Your task to perform on an android device: toggle location history Image 0: 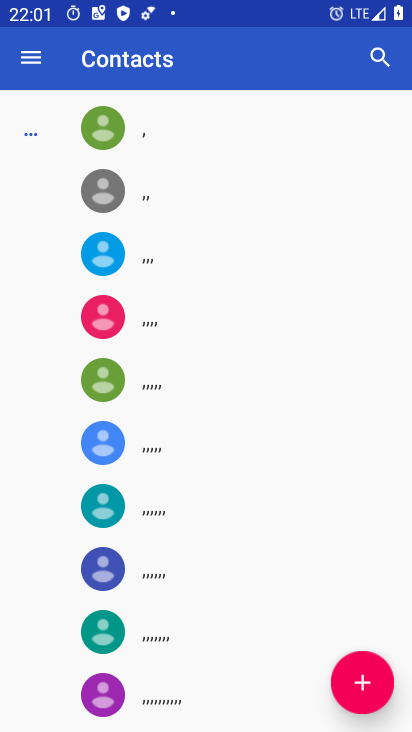
Step 0: press home button
Your task to perform on an android device: toggle location history Image 1: 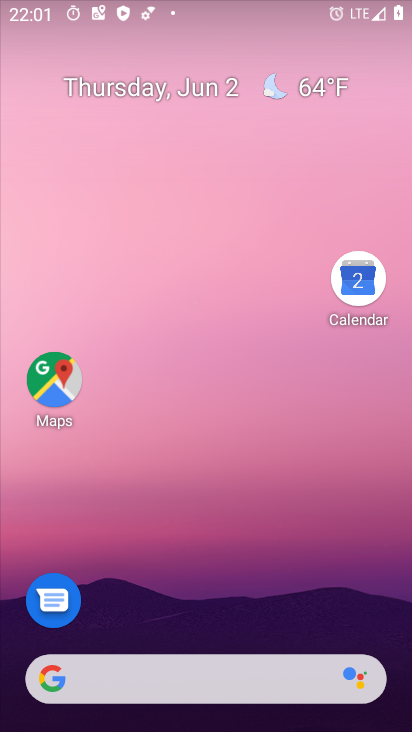
Step 1: drag from (168, 579) to (213, 25)
Your task to perform on an android device: toggle location history Image 2: 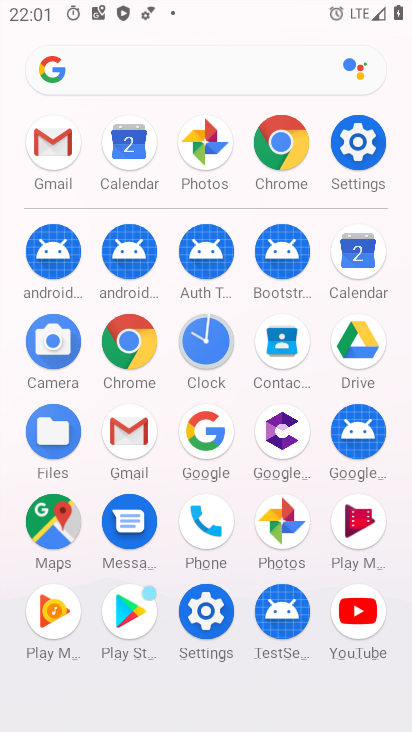
Step 2: click (358, 145)
Your task to perform on an android device: toggle location history Image 3: 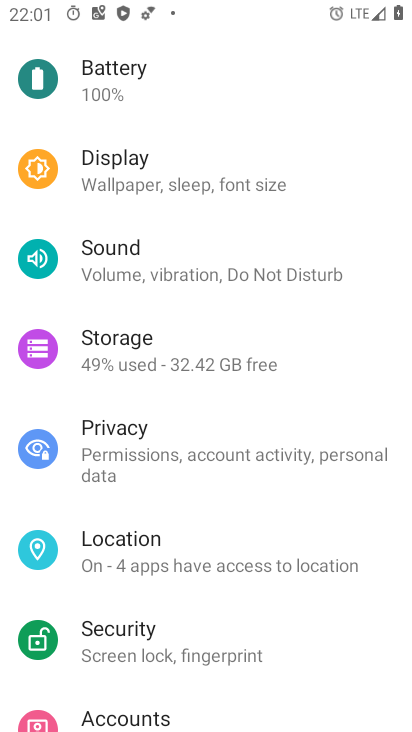
Step 3: click (170, 553)
Your task to perform on an android device: toggle location history Image 4: 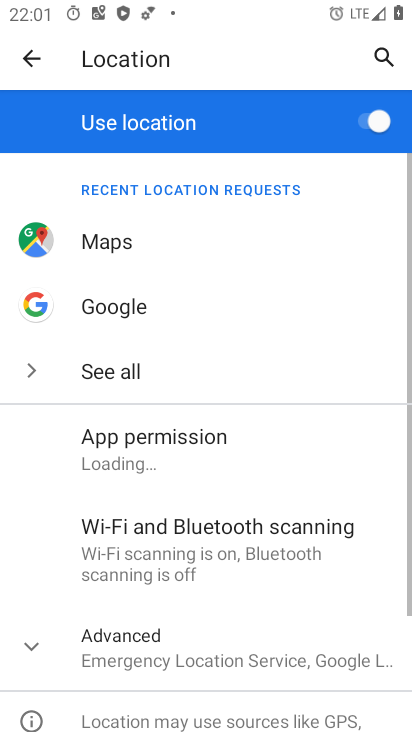
Step 4: drag from (184, 541) to (180, 150)
Your task to perform on an android device: toggle location history Image 5: 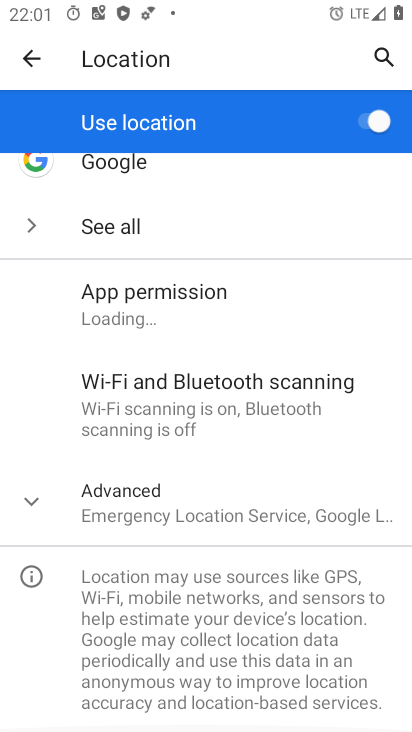
Step 5: click (138, 511)
Your task to perform on an android device: toggle location history Image 6: 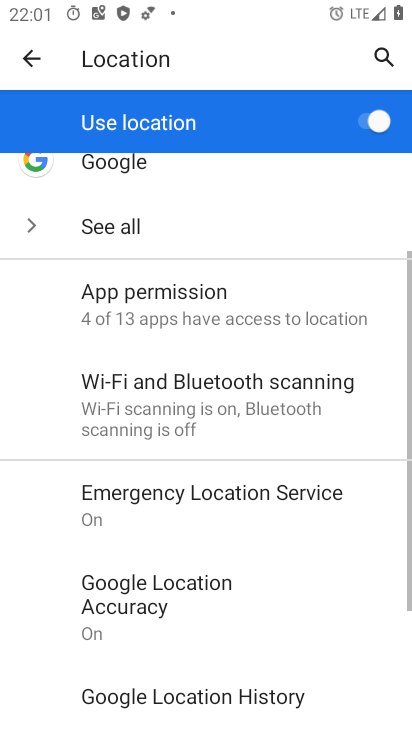
Step 6: drag from (246, 655) to (223, 362)
Your task to perform on an android device: toggle location history Image 7: 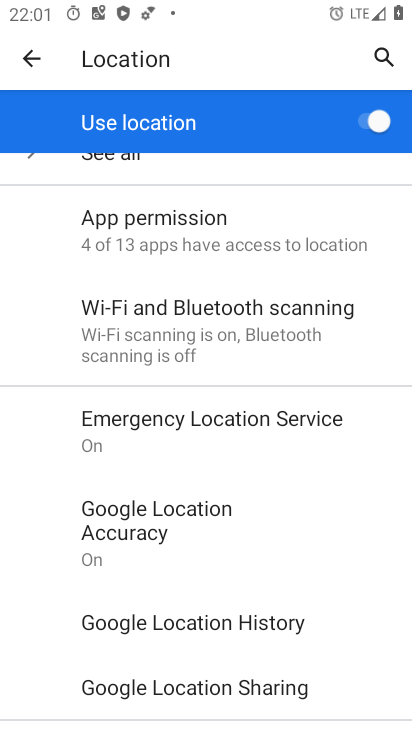
Step 7: click (201, 620)
Your task to perform on an android device: toggle location history Image 8: 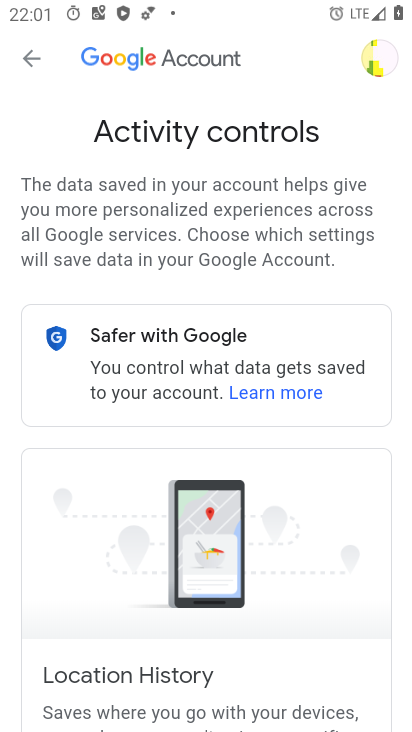
Step 8: drag from (291, 574) to (264, 55)
Your task to perform on an android device: toggle location history Image 9: 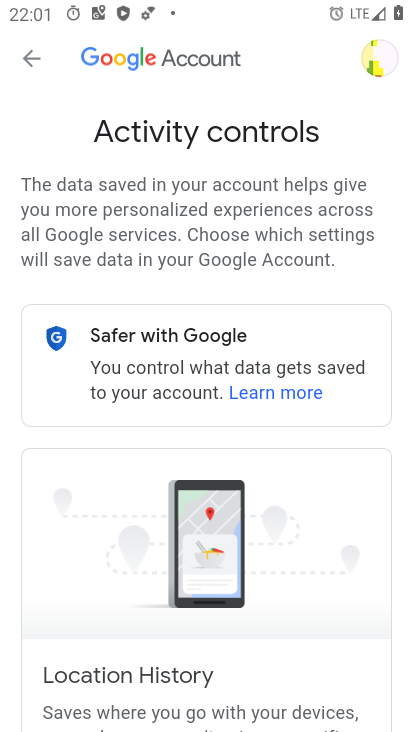
Step 9: drag from (260, 602) to (242, 249)
Your task to perform on an android device: toggle location history Image 10: 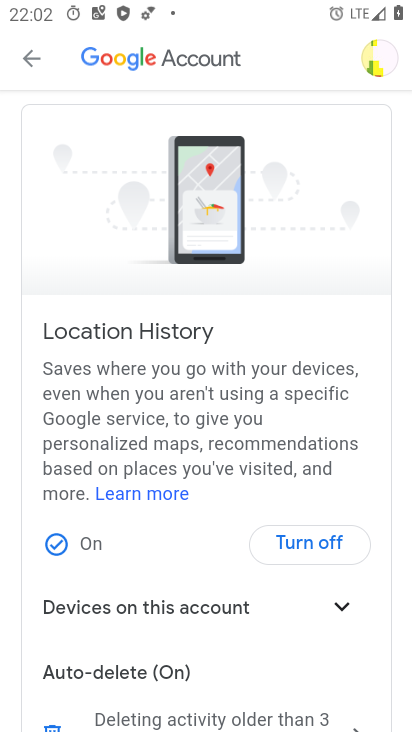
Step 10: click (315, 553)
Your task to perform on an android device: toggle location history Image 11: 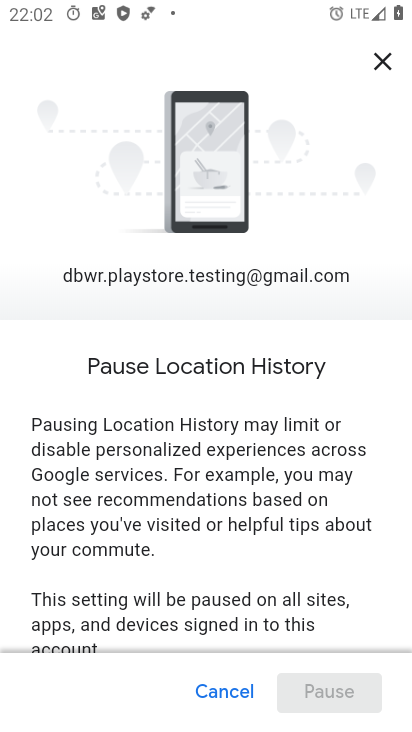
Step 11: drag from (310, 617) to (271, 52)
Your task to perform on an android device: toggle location history Image 12: 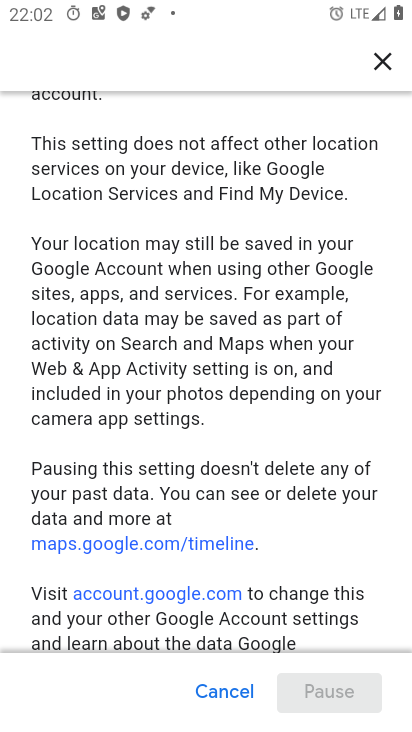
Step 12: drag from (297, 632) to (272, 82)
Your task to perform on an android device: toggle location history Image 13: 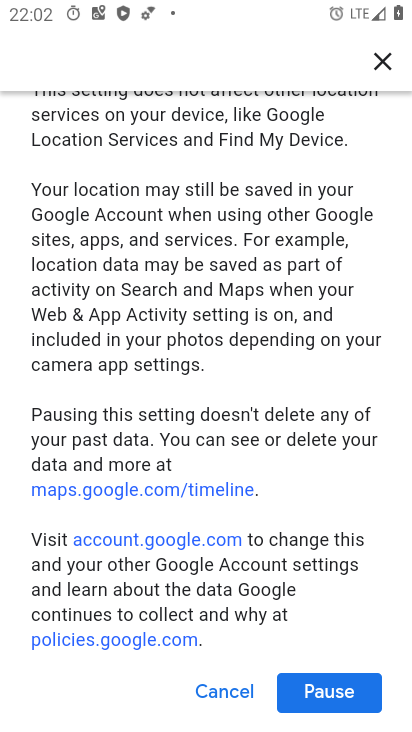
Step 13: click (328, 692)
Your task to perform on an android device: toggle location history Image 14: 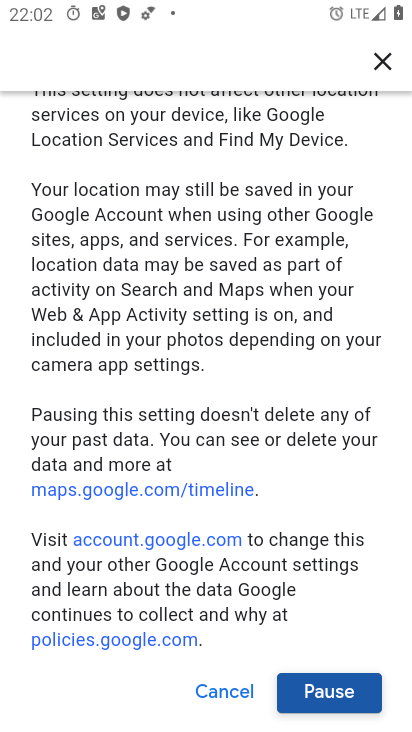
Step 14: click (332, 694)
Your task to perform on an android device: toggle location history Image 15: 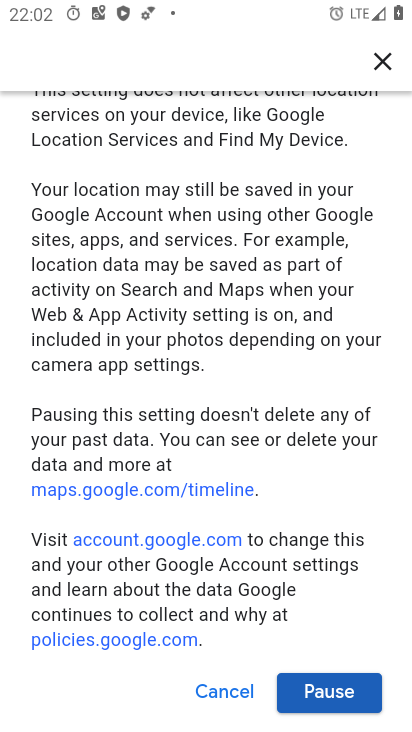
Step 15: click (342, 688)
Your task to perform on an android device: toggle location history Image 16: 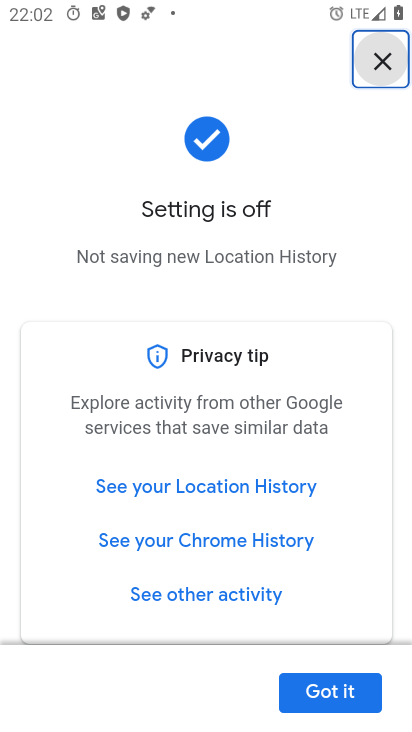
Step 16: click (325, 702)
Your task to perform on an android device: toggle location history Image 17: 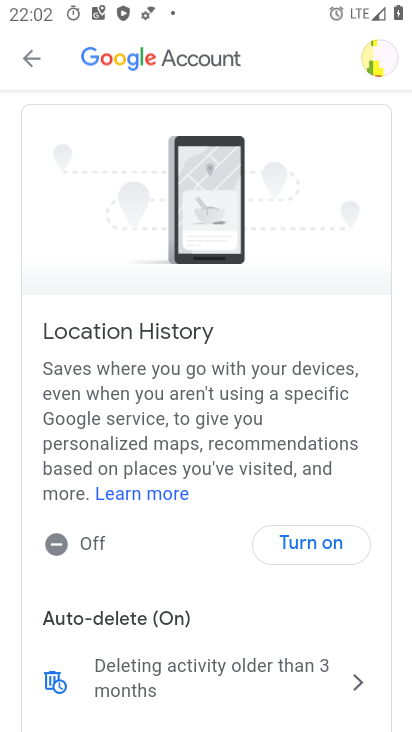
Step 17: task complete